Your task to perform on an android device: manage bookmarks in the chrome app Image 0: 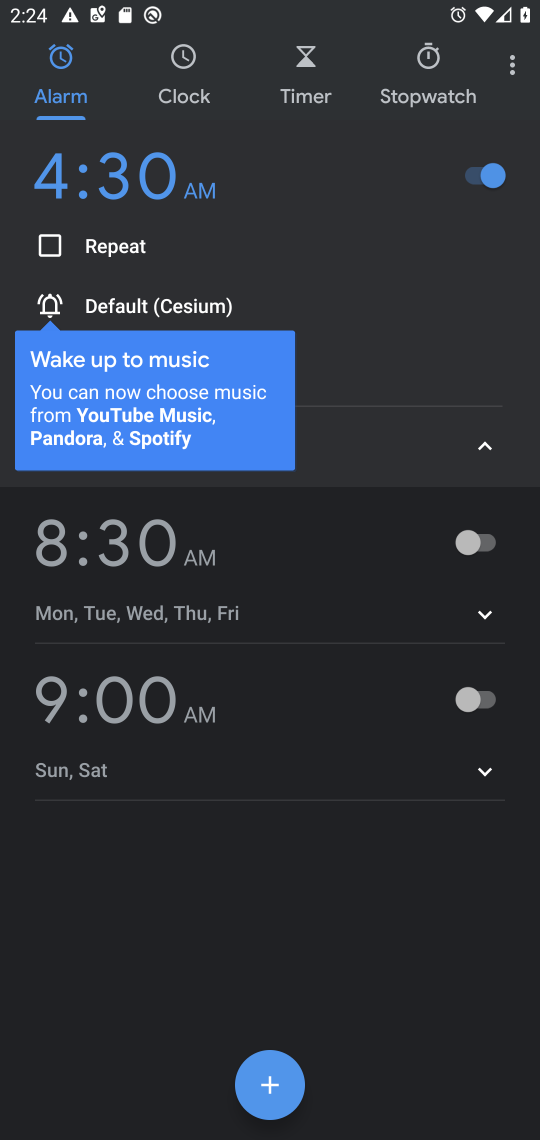
Step 0: press home button
Your task to perform on an android device: manage bookmarks in the chrome app Image 1: 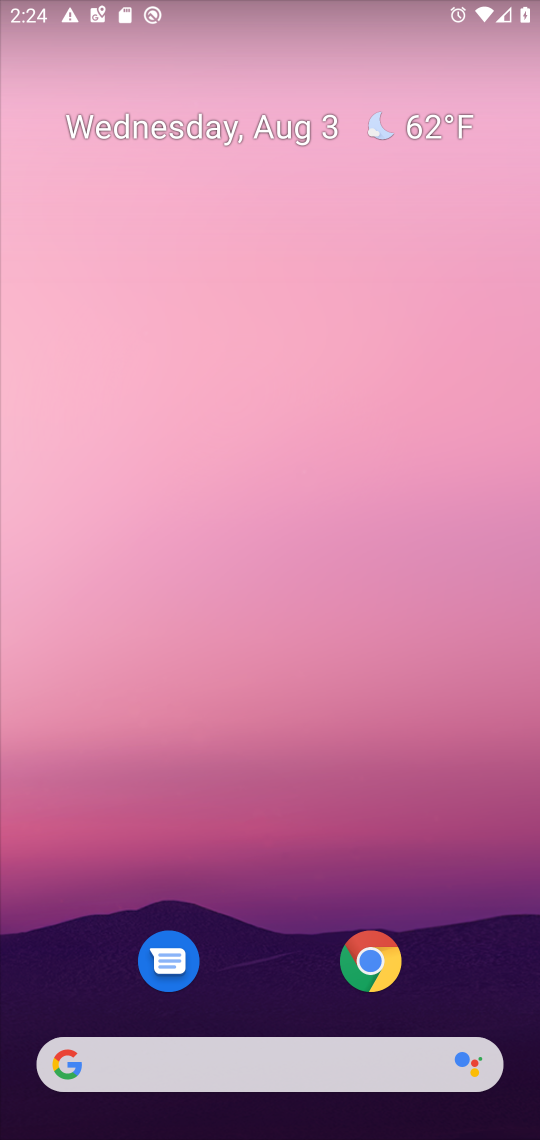
Step 1: click (366, 960)
Your task to perform on an android device: manage bookmarks in the chrome app Image 2: 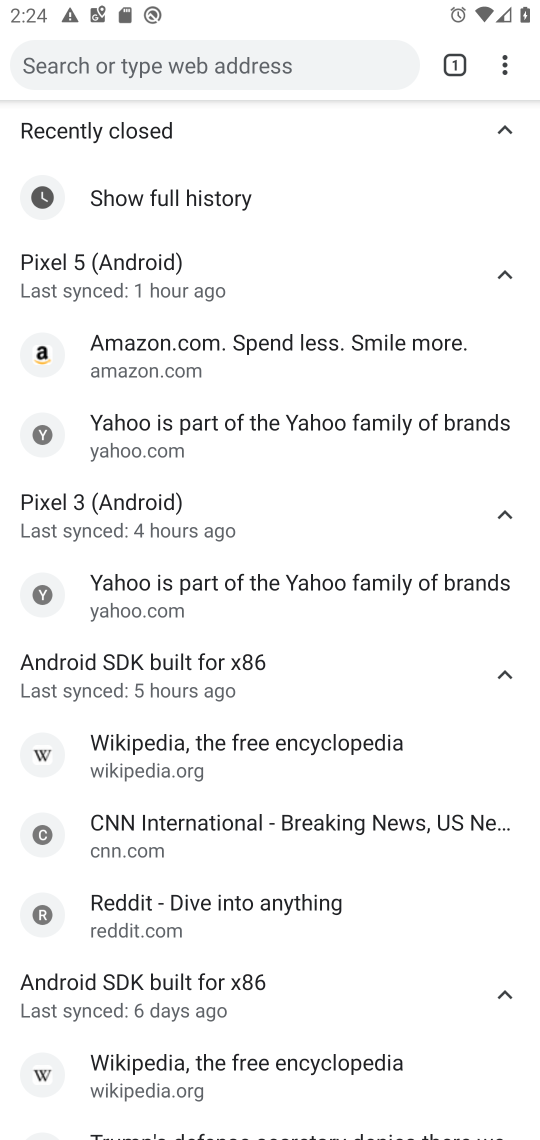
Step 2: drag from (508, 67) to (360, 253)
Your task to perform on an android device: manage bookmarks in the chrome app Image 3: 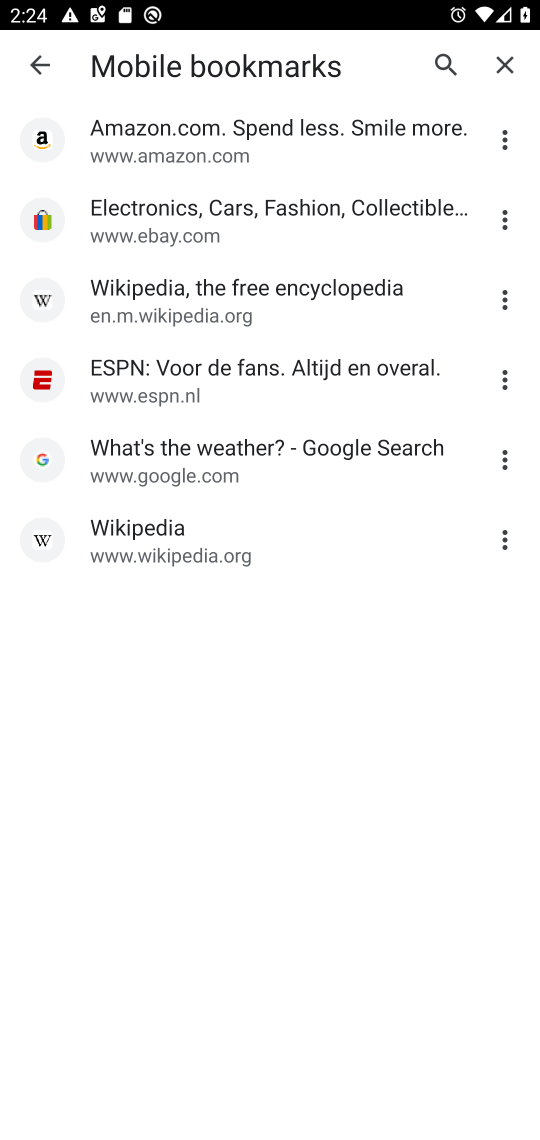
Step 3: click (506, 461)
Your task to perform on an android device: manage bookmarks in the chrome app Image 4: 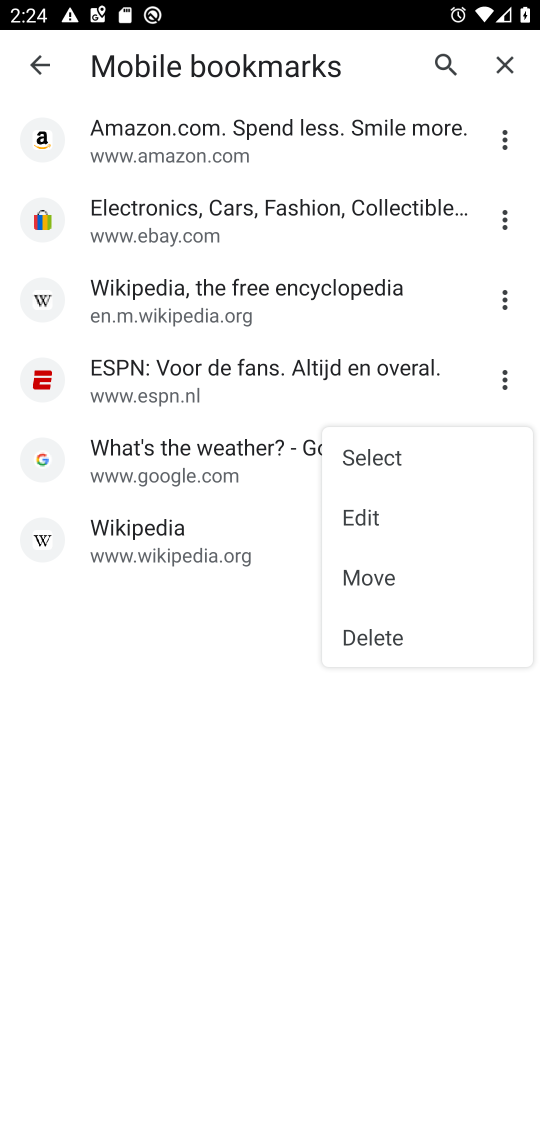
Step 4: click (364, 643)
Your task to perform on an android device: manage bookmarks in the chrome app Image 5: 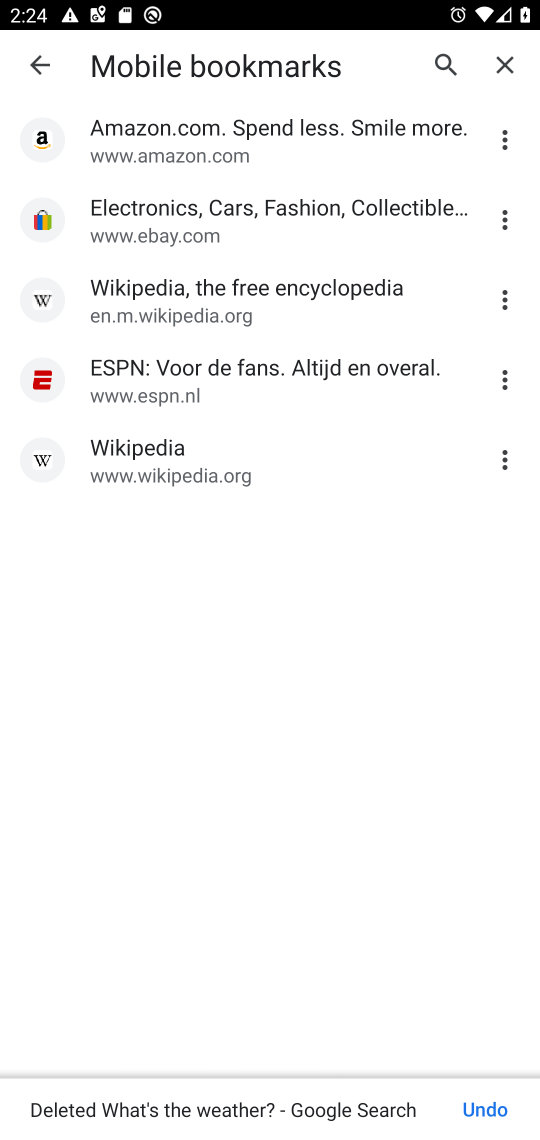
Step 5: task complete